Your task to perform on an android device: move an email to a new category in the gmail app Image 0: 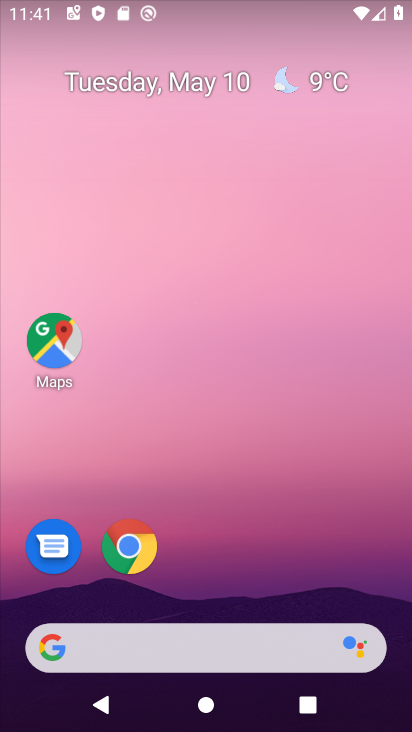
Step 0: click (241, 292)
Your task to perform on an android device: move an email to a new category in the gmail app Image 1: 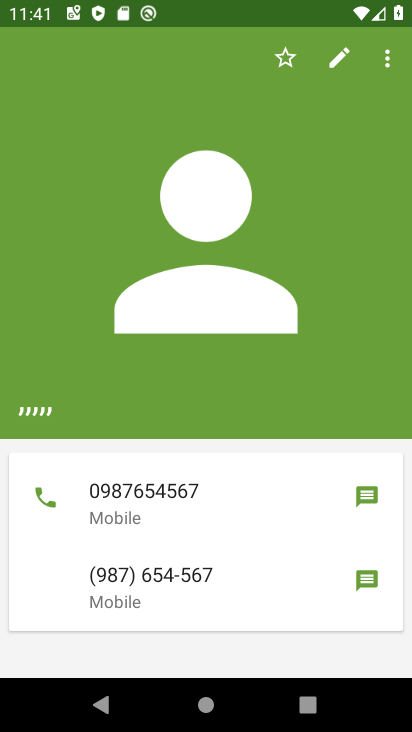
Step 1: drag from (217, 600) to (246, 298)
Your task to perform on an android device: move an email to a new category in the gmail app Image 2: 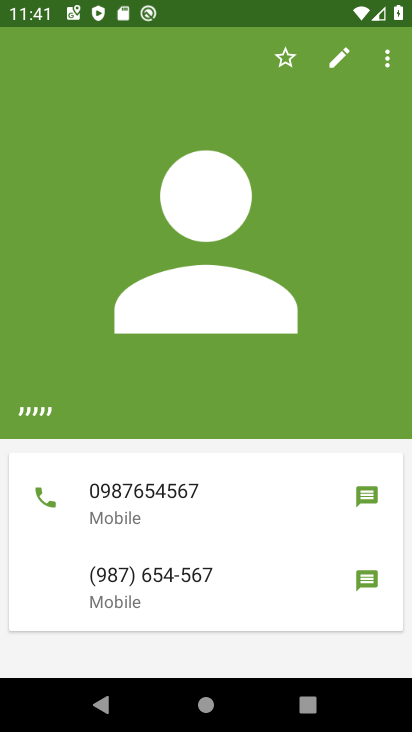
Step 2: press home button
Your task to perform on an android device: move an email to a new category in the gmail app Image 3: 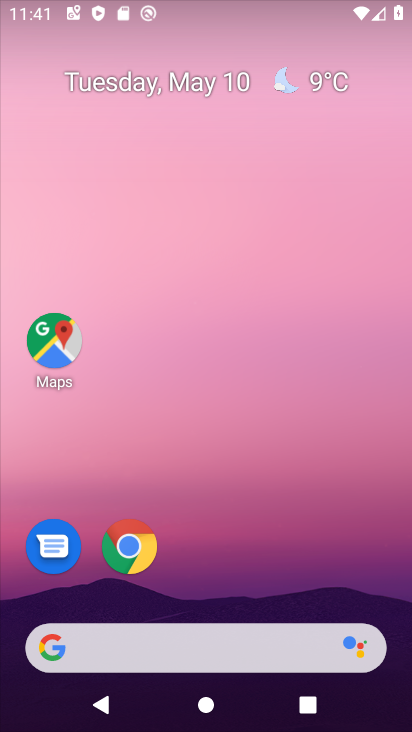
Step 3: drag from (239, 573) to (247, 247)
Your task to perform on an android device: move an email to a new category in the gmail app Image 4: 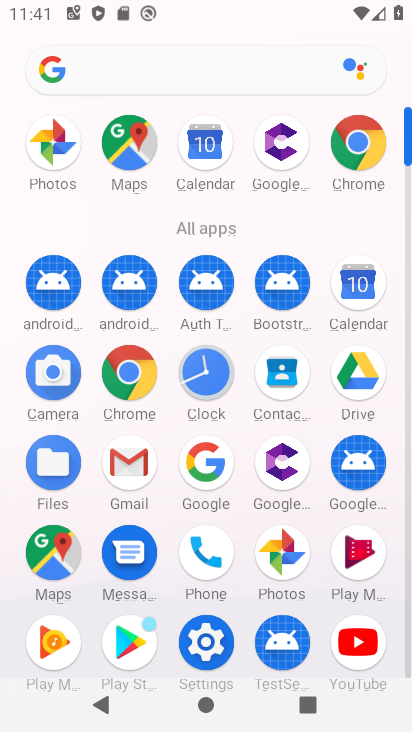
Step 4: click (125, 473)
Your task to perform on an android device: move an email to a new category in the gmail app Image 5: 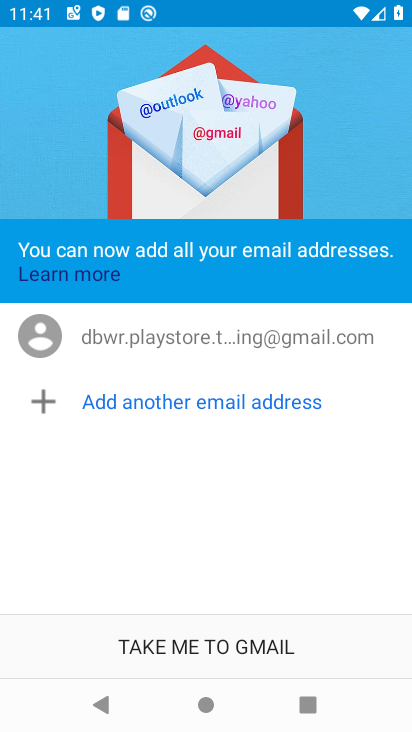
Step 5: drag from (184, 563) to (218, 208)
Your task to perform on an android device: move an email to a new category in the gmail app Image 6: 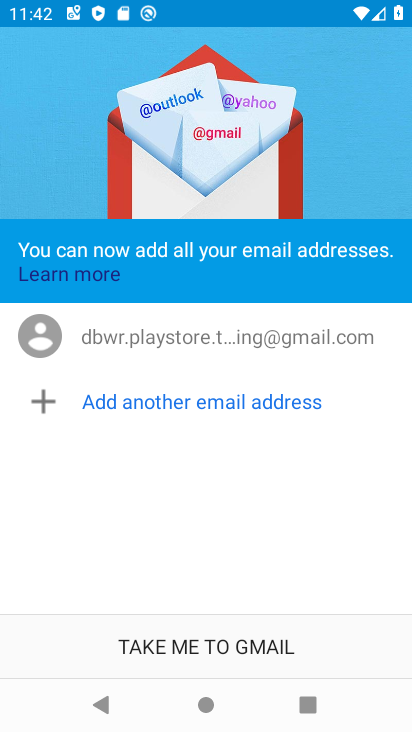
Step 6: click (194, 640)
Your task to perform on an android device: move an email to a new category in the gmail app Image 7: 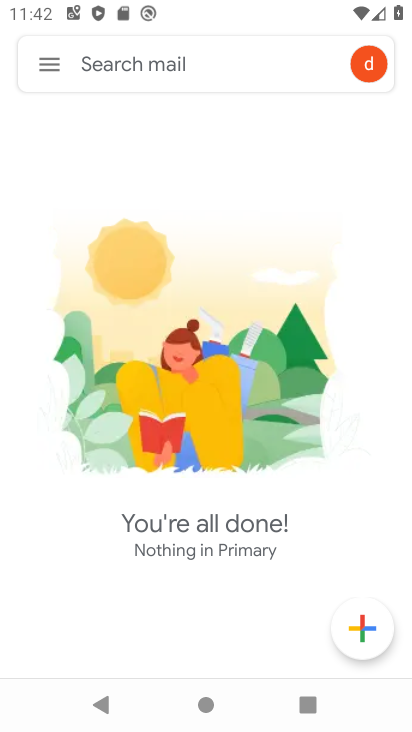
Step 7: drag from (190, 601) to (217, 313)
Your task to perform on an android device: move an email to a new category in the gmail app Image 8: 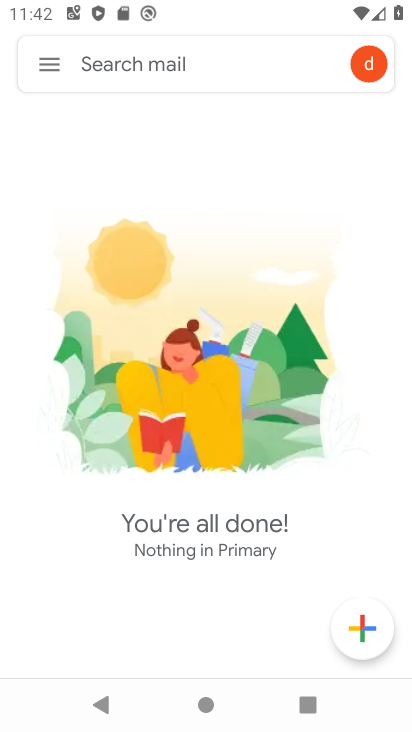
Step 8: click (54, 70)
Your task to perform on an android device: move an email to a new category in the gmail app Image 9: 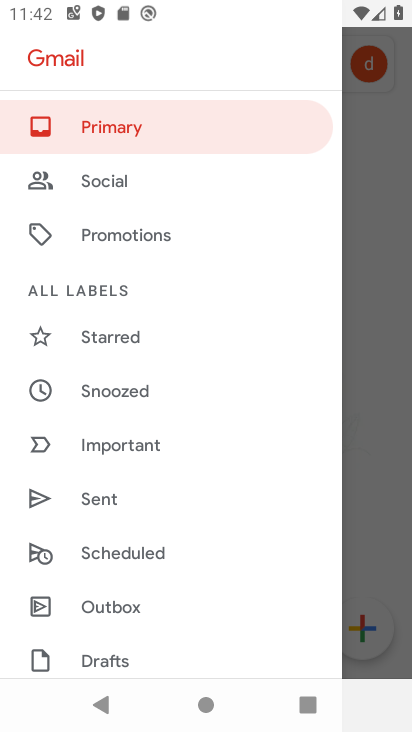
Step 9: task complete